Your task to perform on an android device: Go to eBay Image 0: 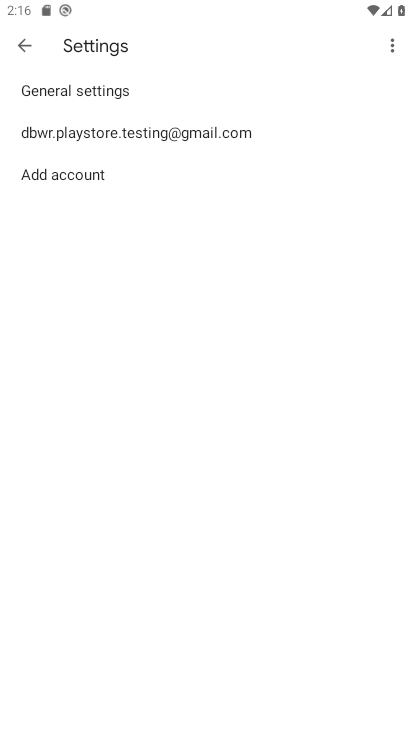
Step 0: press home button
Your task to perform on an android device: Go to eBay Image 1: 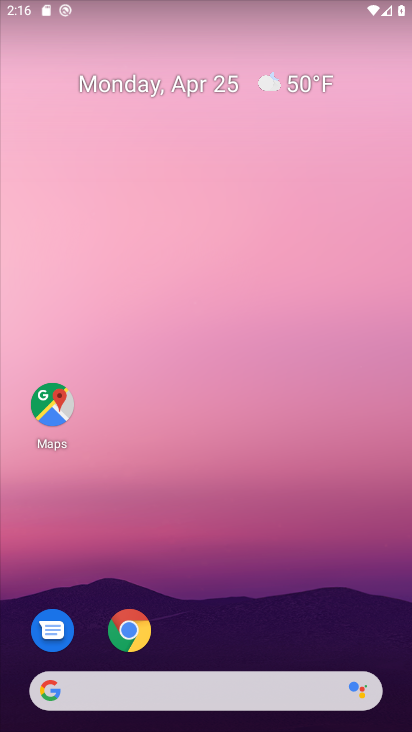
Step 1: click (131, 633)
Your task to perform on an android device: Go to eBay Image 2: 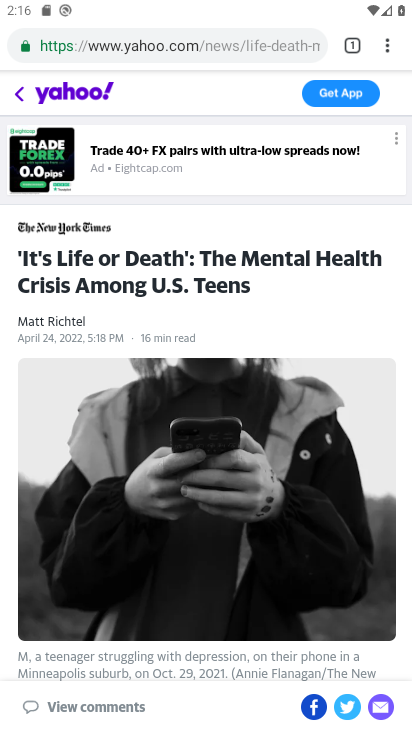
Step 2: click (352, 39)
Your task to perform on an android device: Go to eBay Image 3: 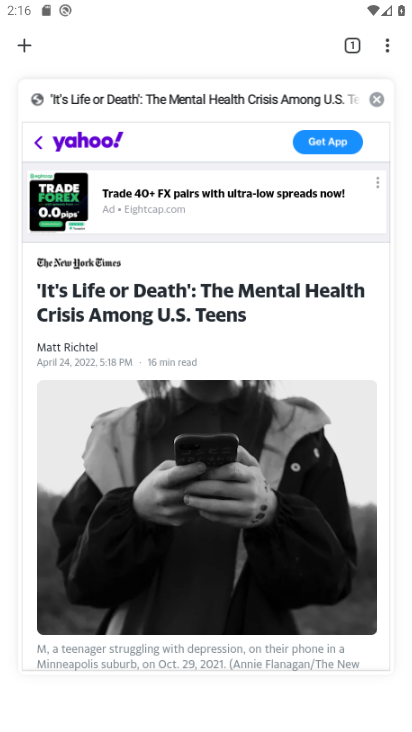
Step 3: click (33, 49)
Your task to perform on an android device: Go to eBay Image 4: 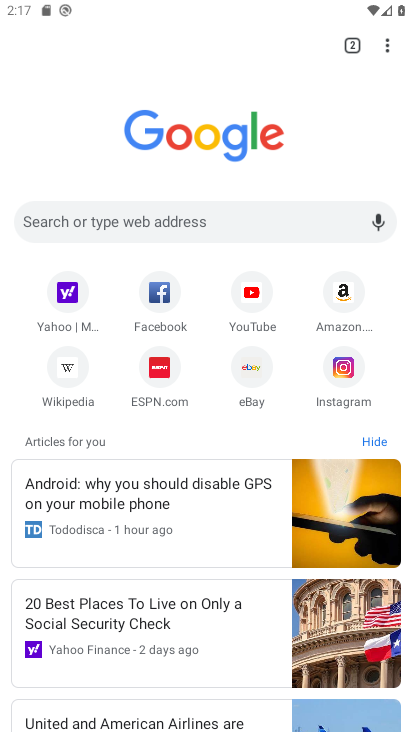
Step 4: click (244, 358)
Your task to perform on an android device: Go to eBay Image 5: 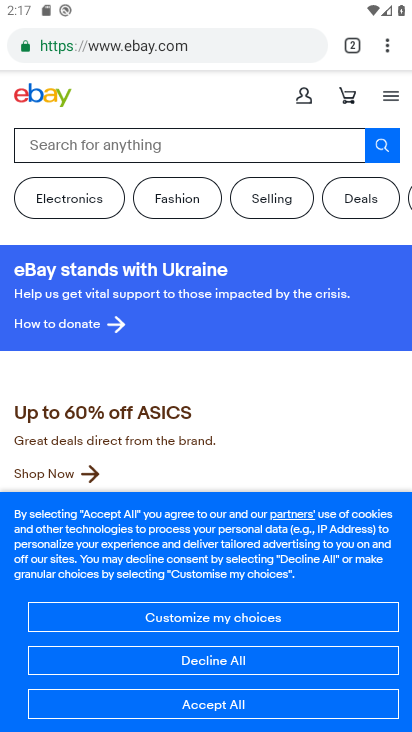
Step 5: task complete